Your task to perform on an android device: Go to notification settings Image 0: 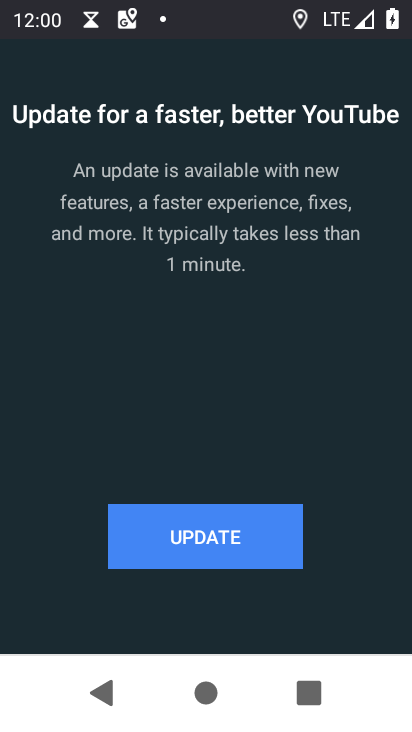
Step 0: press home button
Your task to perform on an android device: Go to notification settings Image 1: 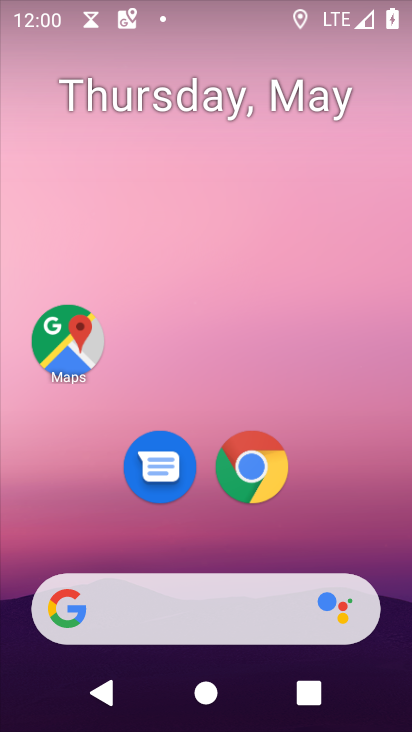
Step 1: drag from (197, 599) to (335, 159)
Your task to perform on an android device: Go to notification settings Image 2: 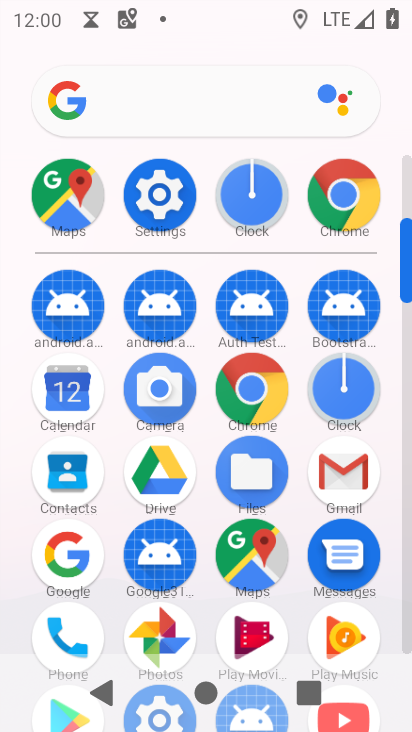
Step 2: click (173, 196)
Your task to perform on an android device: Go to notification settings Image 3: 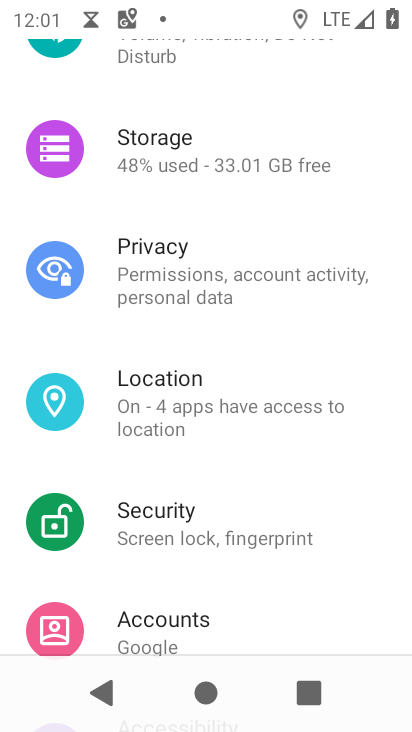
Step 3: drag from (278, 104) to (216, 580)
Your task to perform on an android device: Go to notification settings Image 4: 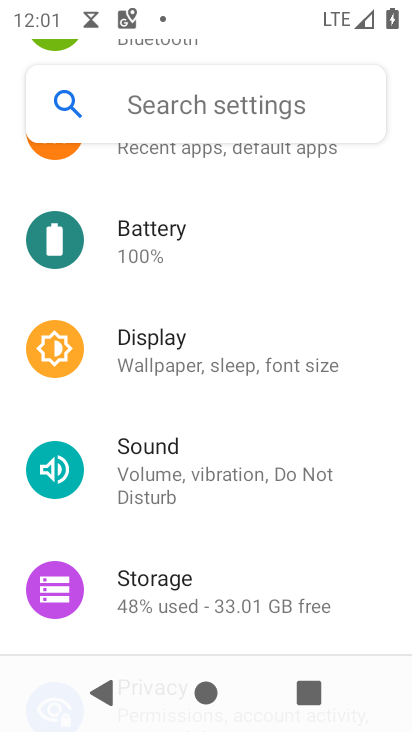
Step 4: drag from (225, 307) to (218, 578)
Your task to perform on an android device: Go to notification settings Image 5: 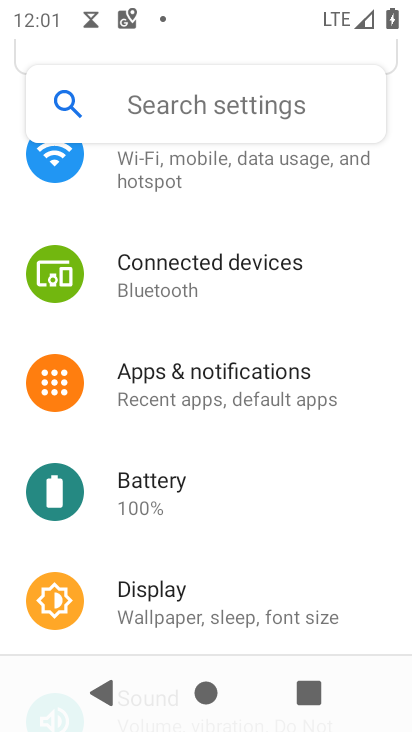
Step 5: click (238, 393)
Your task to perform on an android device: Go to notification settings Image 6: 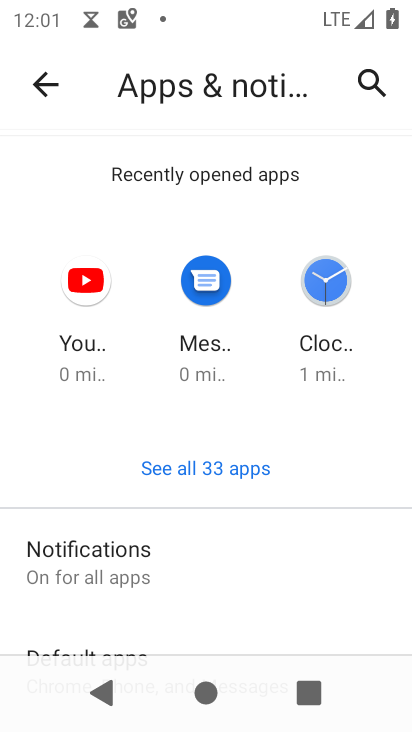
Step 6: click (139, 564)
Your task to perform on an android device: Go to notification settings Image 7: 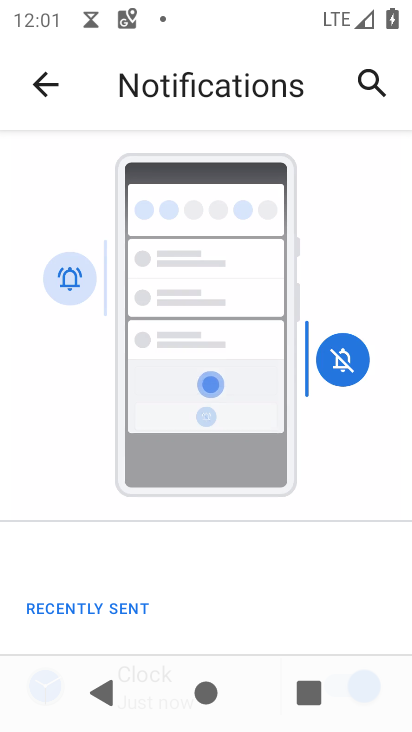
Step 7: task complete